Your task to perform on an android device: turn on wifi Image 0: 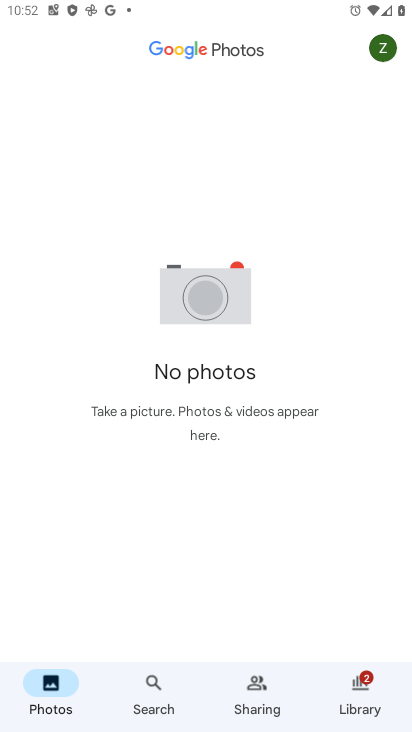
Step 0: press home button
Your task to perform on an android device: turn on wifi Image 1: 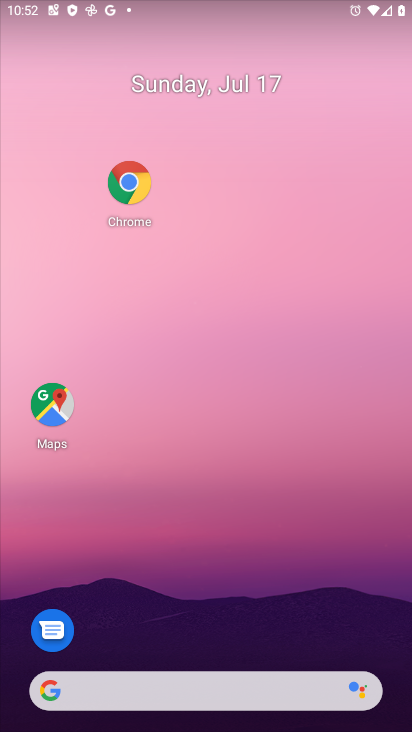
Step 1: drag from (205, 635) to (227, 186)
Your task to perform on an android device: turn on wifi Image 2: 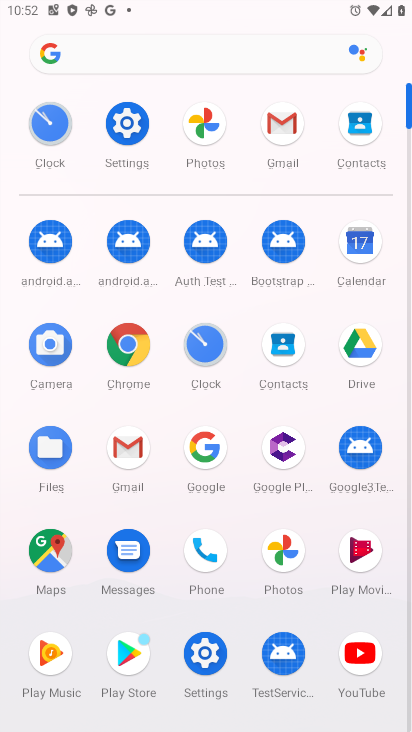
Step 2: click (124, 123)
Your task to perform on an android device: turn on wifi Image 3: 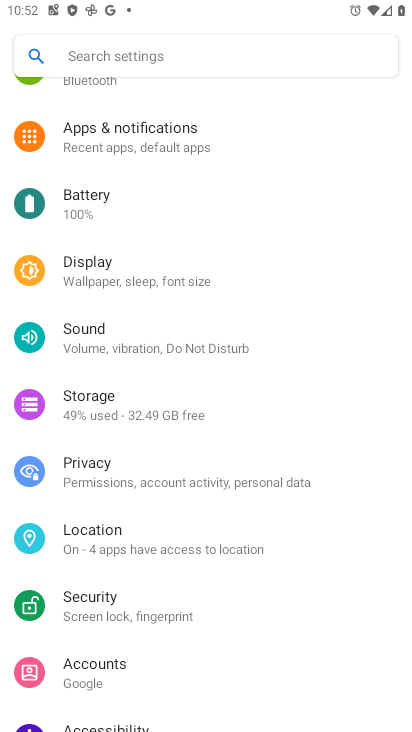
Step 3: drag from (124, 128) to (118, 454)
Your task to perform on an android device: turn on wifi Image 4: 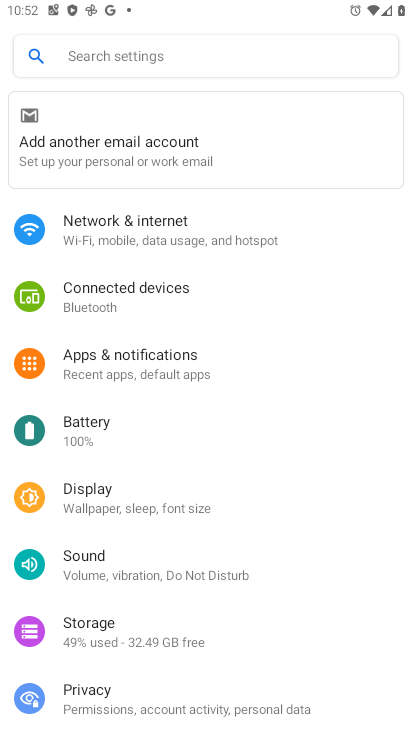
Step 4: click (116, 210)
Your task to perform on an android device: turn on wifi Image 5: 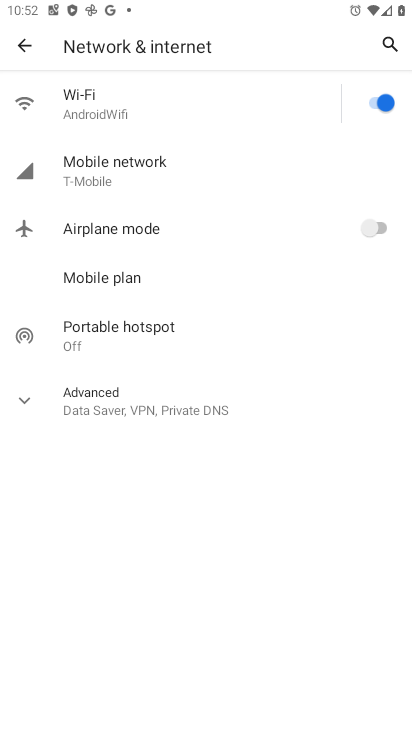
Step 5: task complete